Your task to perform on an android device: check out phone information Image 0: 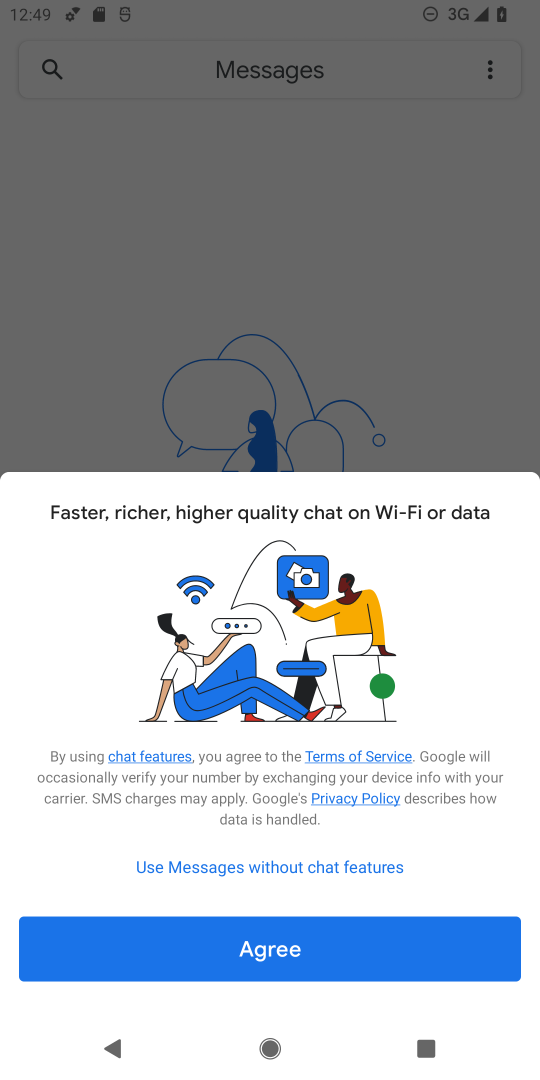
Step 0: press home button
Your task to perform on an android device: check out phone information Image 1: 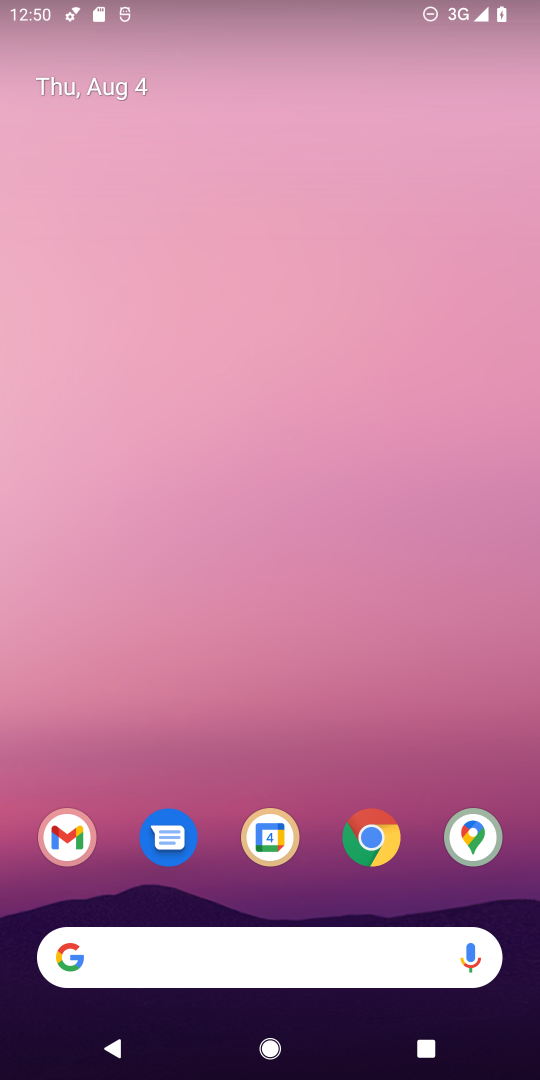
Step 1: drag from (452, 875) to (308, 3)
Your task to perform on an android device: check out phone information Image 2: 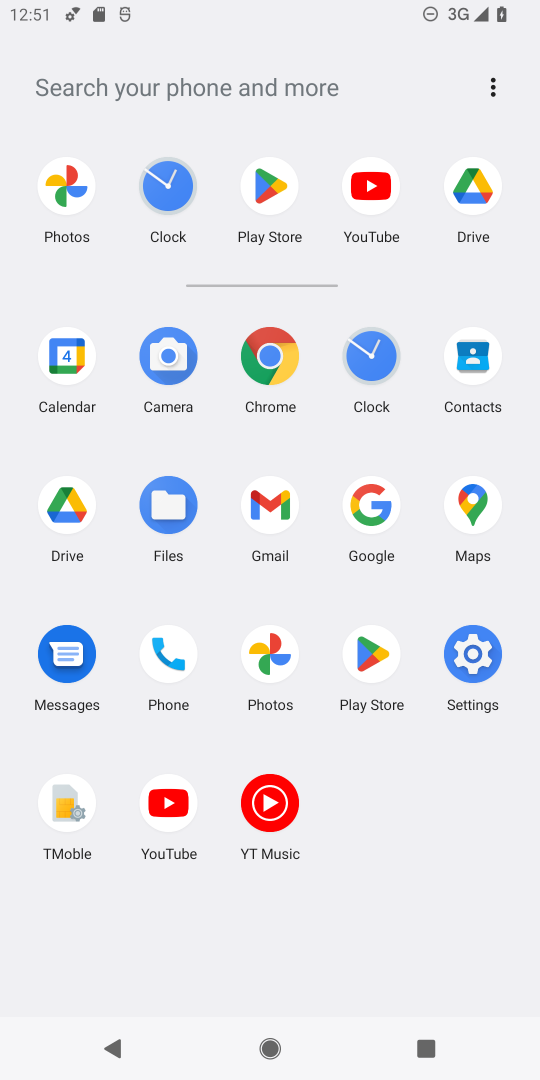
Step 2: click (488, 654)
Your task to perform on an android device: check out phone information Image 3: 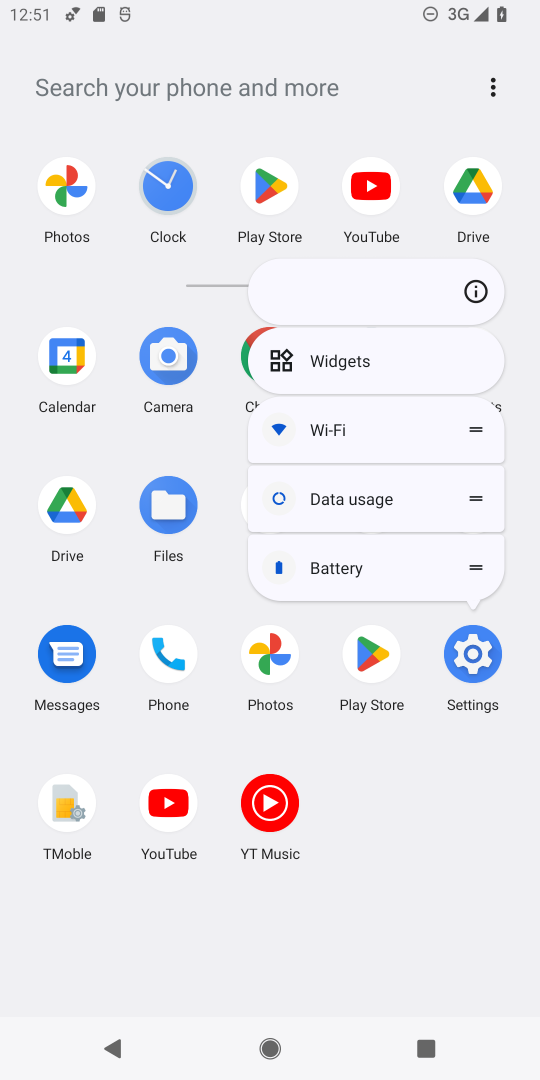
Step 3: click (469, 656)
Your task to perform on an android device: check out phone information Image 4: 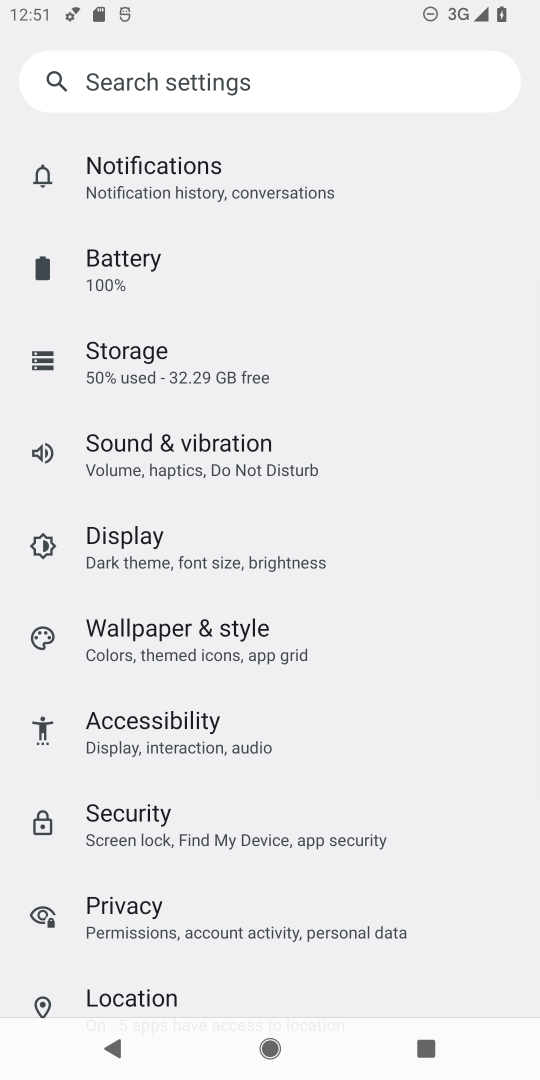
Step 4: task complete